Your task to perform on an android device: set the timer Image 0: 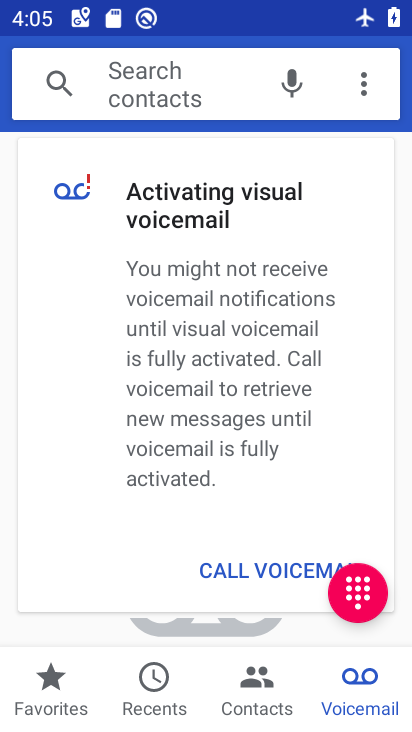
Step 0: press home button
Your task to perform on an android device: set the timer Image 1: 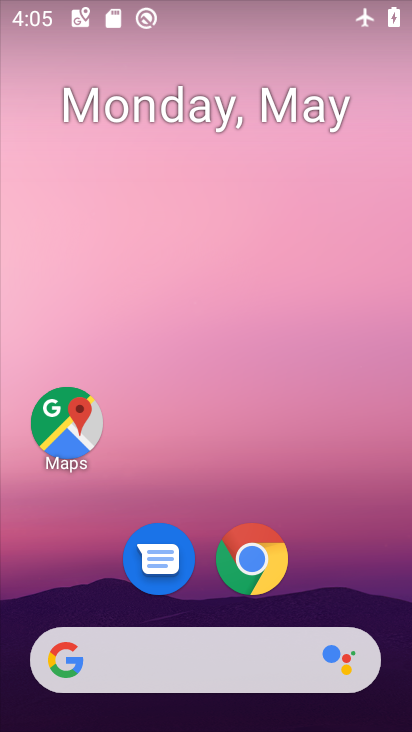
Step 1: drag from (277, 639) to (260, 93)
Your task to perform on an android device: set the timer Image 2: 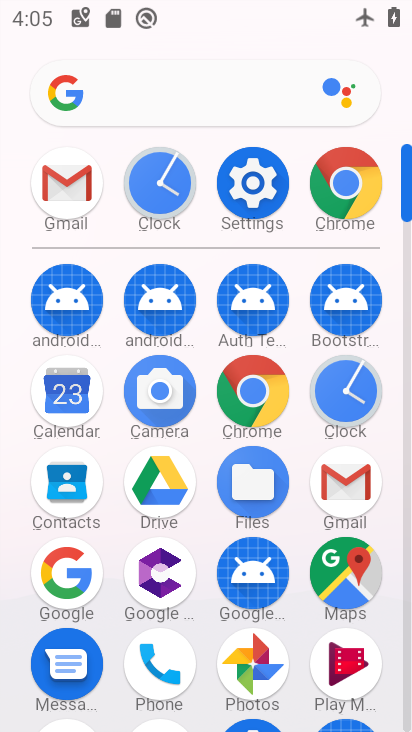
Step 2: click (339, 421)
Your task to perform on an android device: set the timer Image 3: 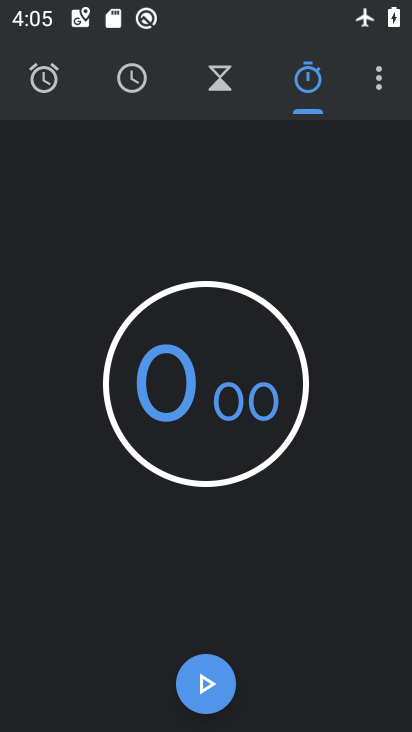
Step 3: click (235, 80)
Your task to perform on an android device: set the timer Image 4: 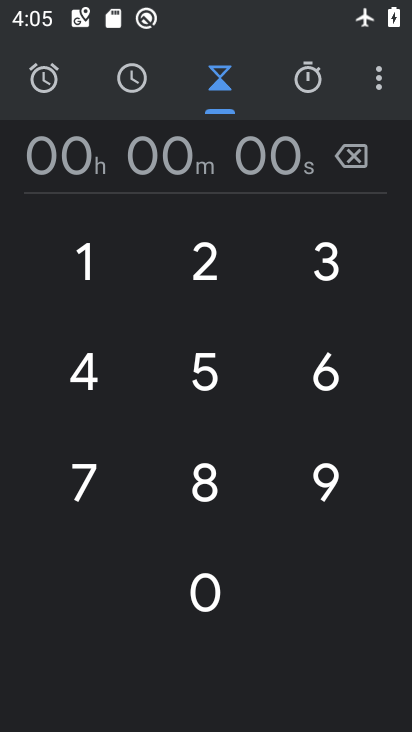
Step 4: click (216, 276)
Your task to perform on an android device: set the timer Image 5: 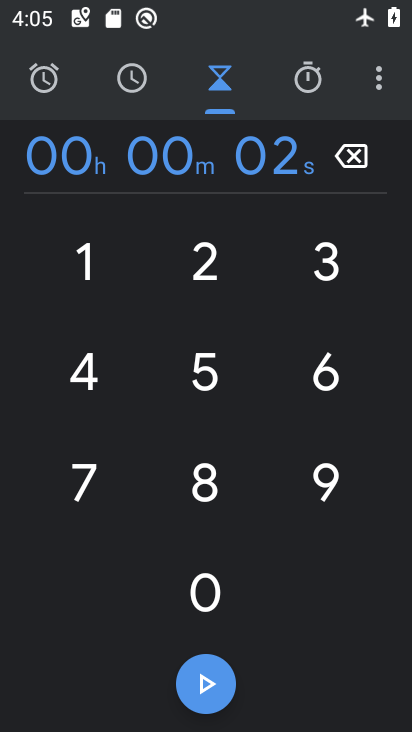
Step 5: click (212, 598)
Your task to perform on an android device: set the timer Image 6: 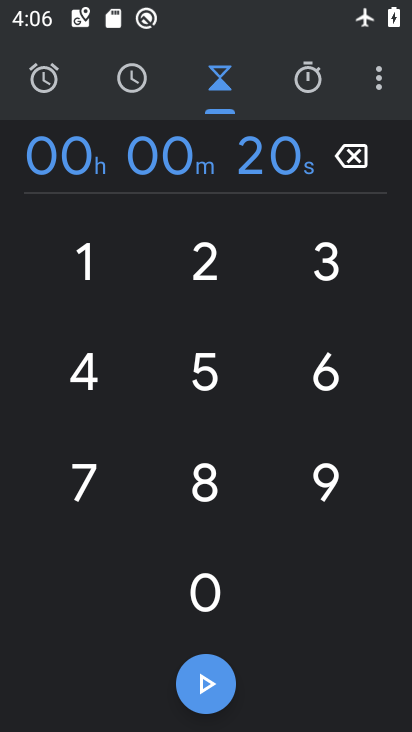
Step 6: click (204, 257)
Your task to perform on an android device: set the timer Image 7: 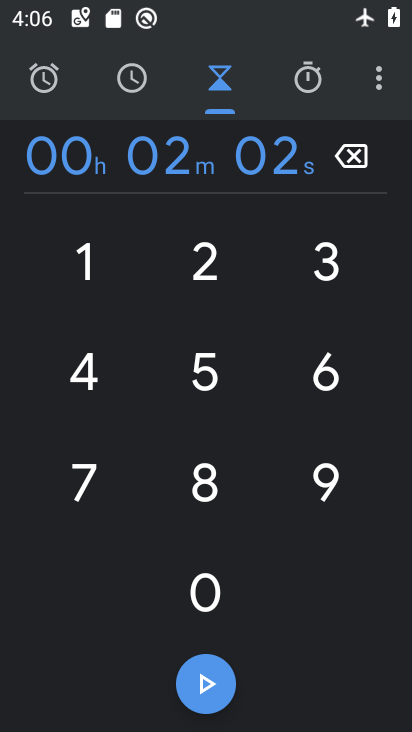
Step 7: click (213, 595)
Your task to perform on an android device: set the timer Image 8: 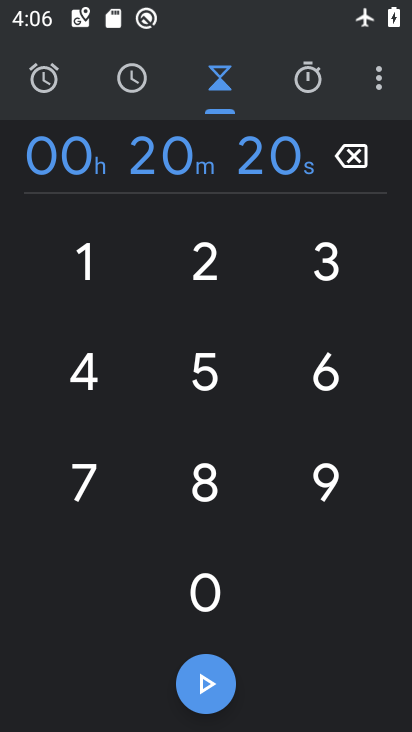
Step 8: click (200, 686)
Your task to perform on an android device: set the timer Image 9: 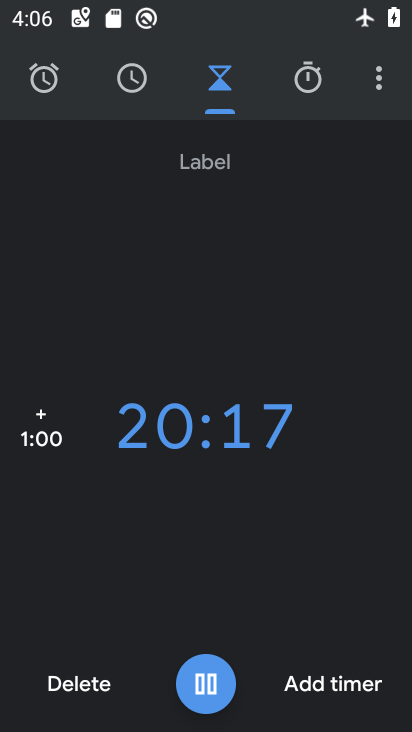
Step 9: task complete